Your task to perform on an android device: Find coffee shops on Maps Image 0: 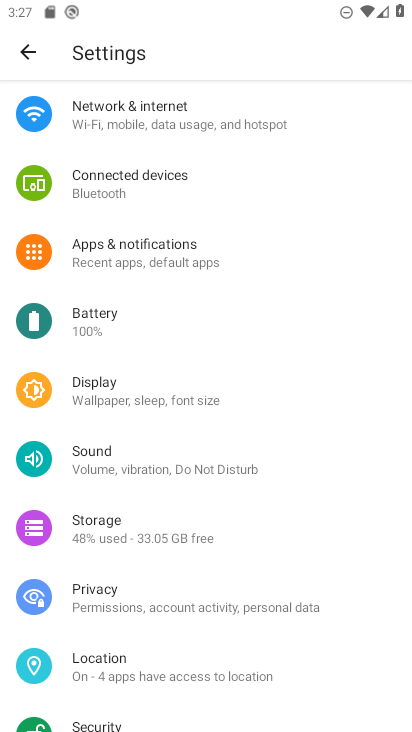
Step 0: press home button
Your task to perform on an android device: Find coffee shops on Maps Image 1: 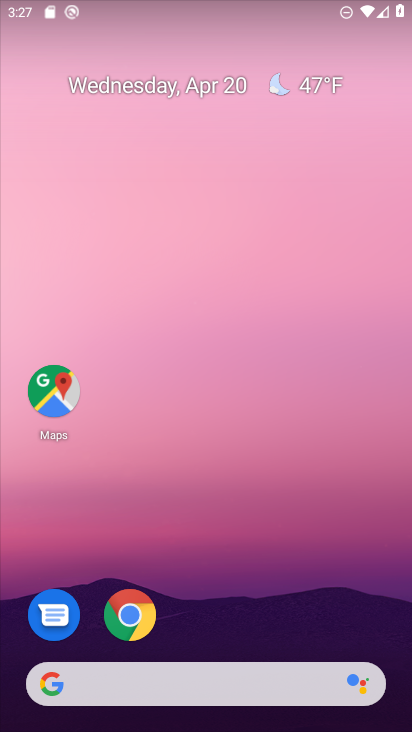
Step 1: click (63, 390)
Your task to perform on an android device: Find coffee shops on Maps Image 2: 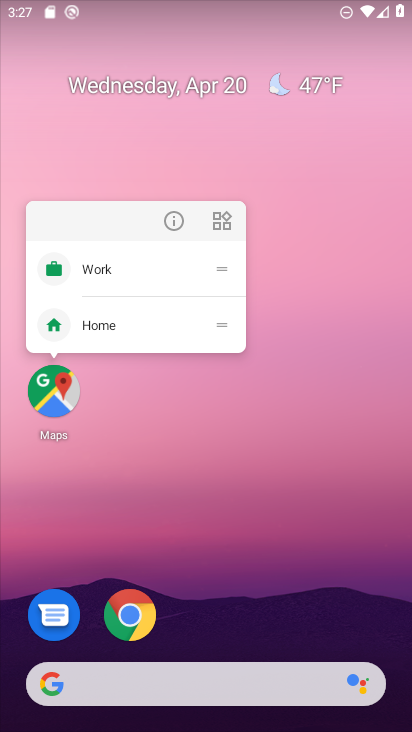
Step 2: click (59, 398)
Your task to perform on an android device: Find coffee shops on Maps Image 3: 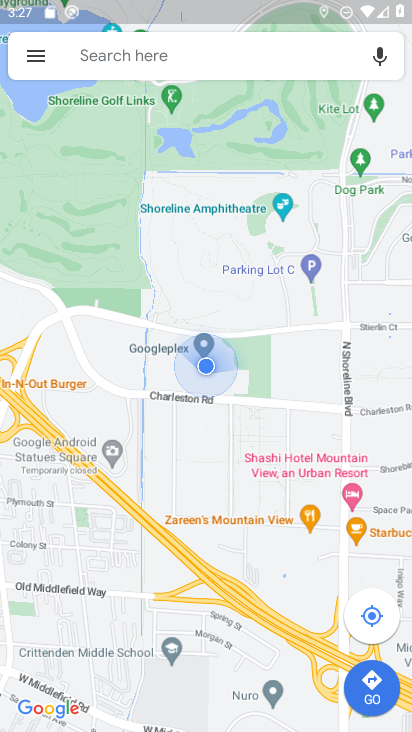
Step 3: click (168, 53)
Your task to perform on an android device: Find coffee shops on Maps Image 4: 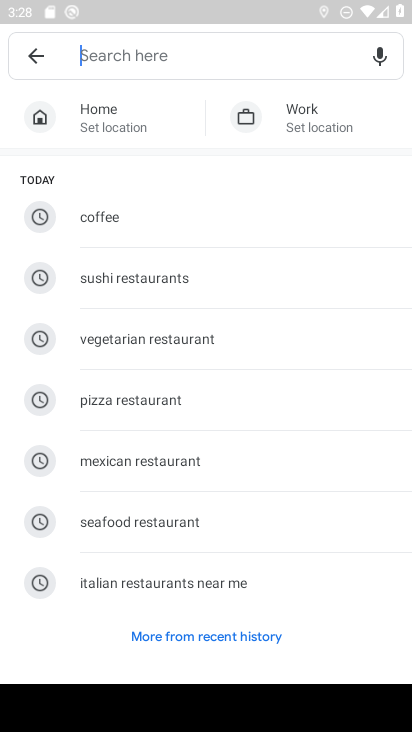
Step 4: type "coffee"
Your task to perform on an android device: Find coffee shops on Maps Image 5: 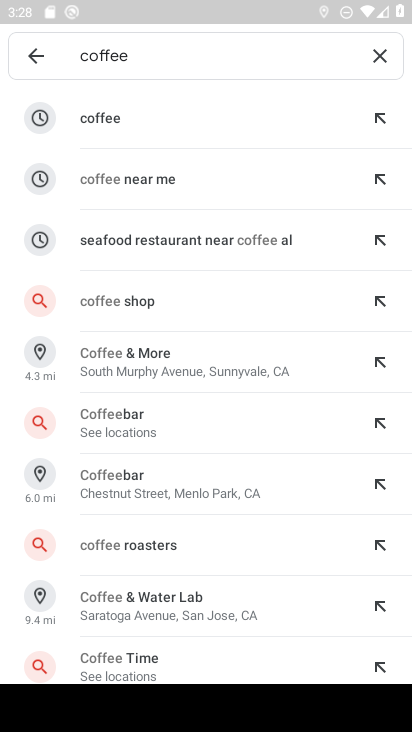
Step 5: task complete